Your task to perform on an android device: turn on showing notifications on the lock screen Image 0: 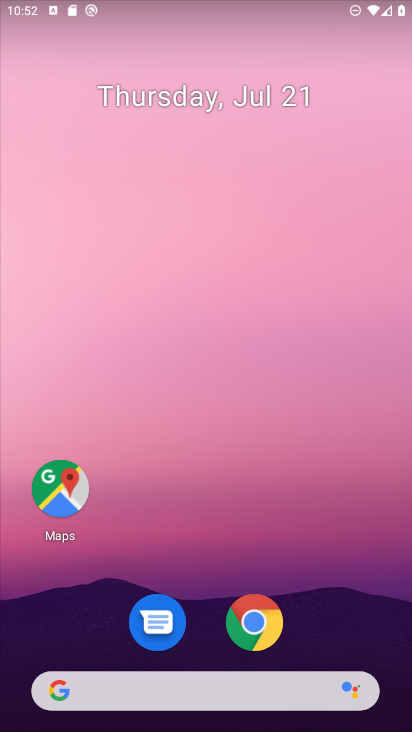
Step 0: drag from (291, 389) to (273, 73)
Your task to perform on an android device: turn on showing notifications on the lock screen Image 1: 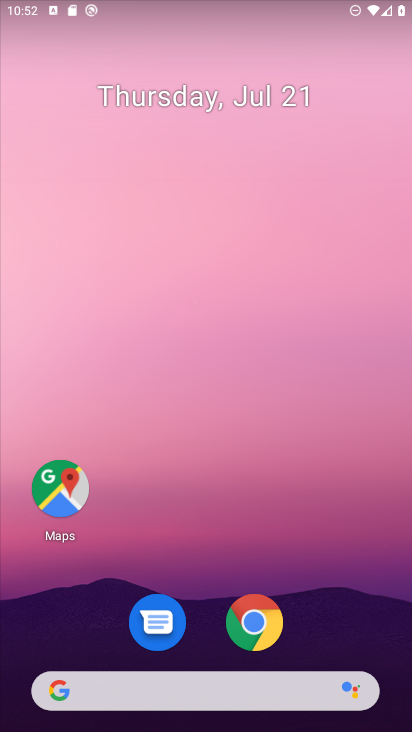
Step 1: drag from (148, 718) to (201, 12)
Your task to perform on an android device: turn on showing notifications on the lock screen Image 2: 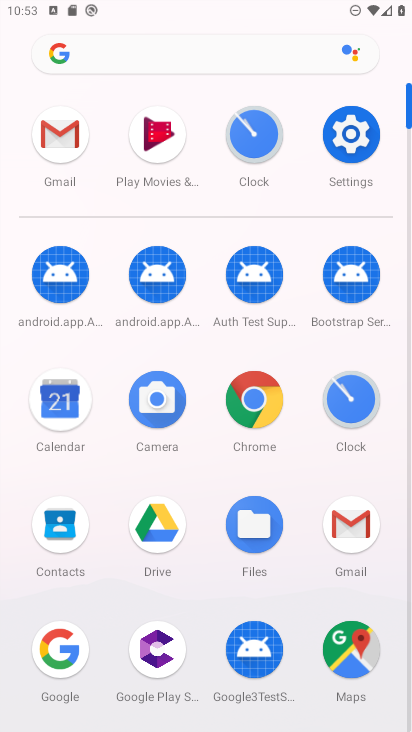
Step 2: click (363, 142)
Your task to perform on an android device: turn on showing notifications on the lock screen Image 3: 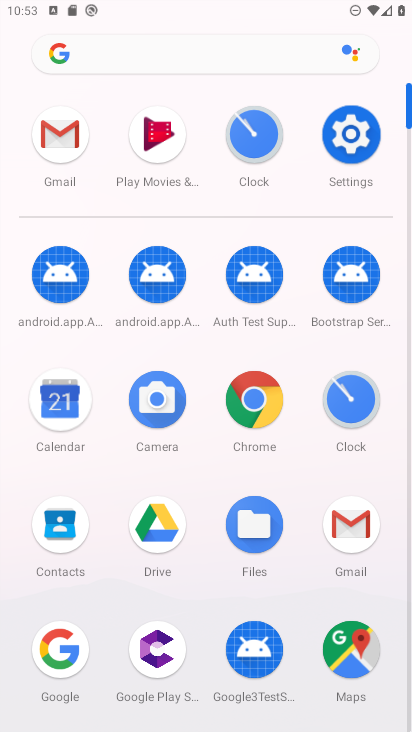
Step 3: click (363, 142)
Your task to perform on an android device: turn on showing notifications on the lock screen Image 4: 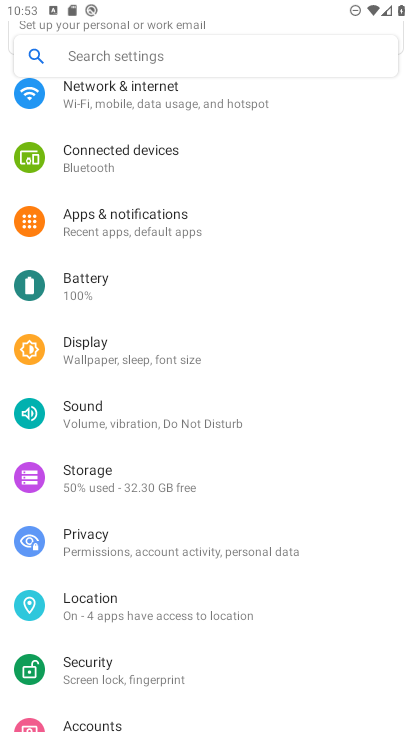
Step 4: click (176, 235)
Your task to perform on an android device: turn on showing notifications on the lock screen Image 5: 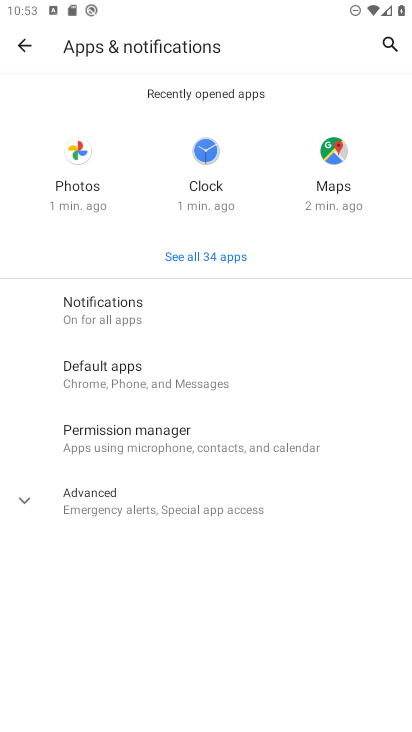
Step 5: click (144, 315)
Your task to perform on an android device: turn on showing notifications on the lock screen Image 6: 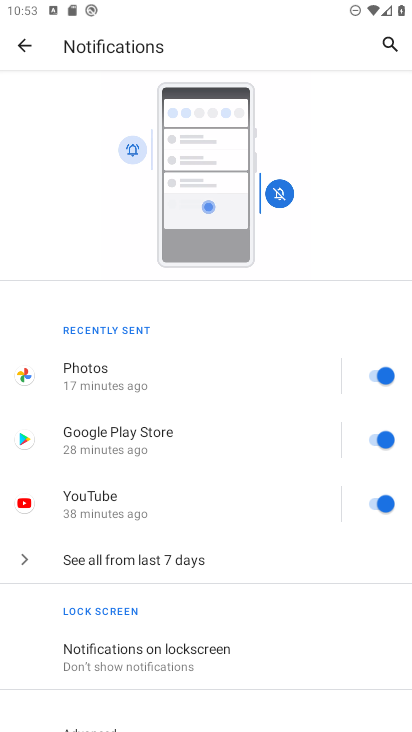
Step 6: drag from (206, 574) to (159, 57)
Your task to perform on an android device: turn on showing notifications on the lock screen Image 7: 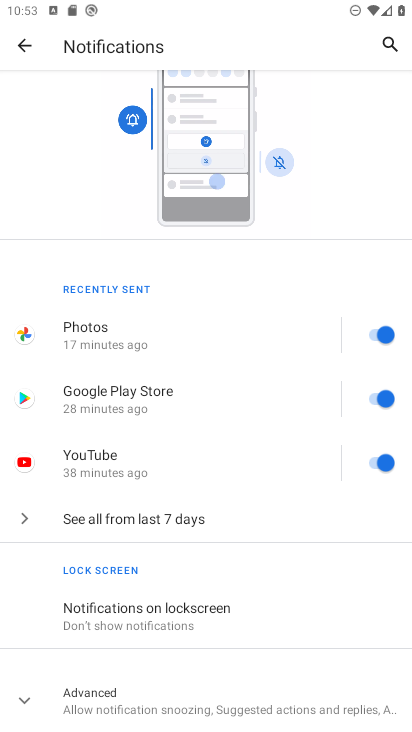
Step 7: click (191, 614)
Your task to perform on an android device: turn on showing notifications on the lock screen Image 8: 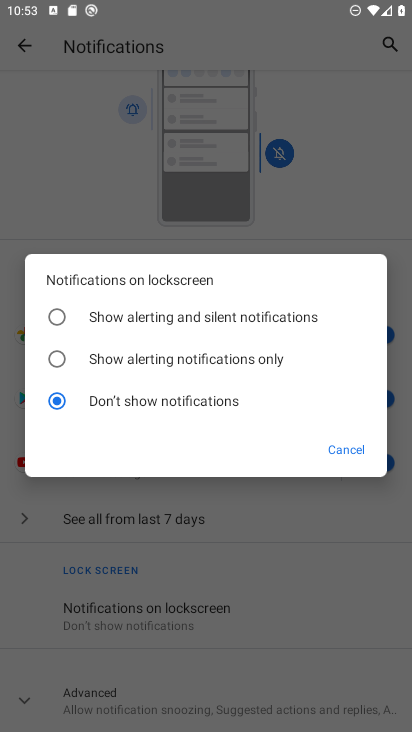
Step 8: click (230, 314)
Your task to perform on an android device: turn on showing notifications on the lock screen Image 9: 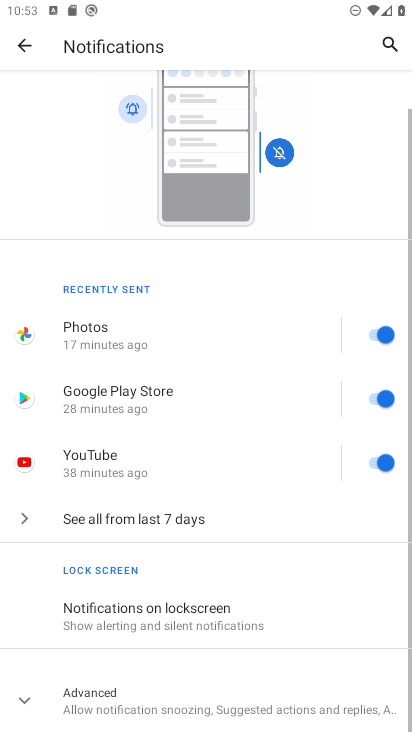
Step 9: task complete